Your task to perform on an android device: set default search engine in the chrome app Image 0: 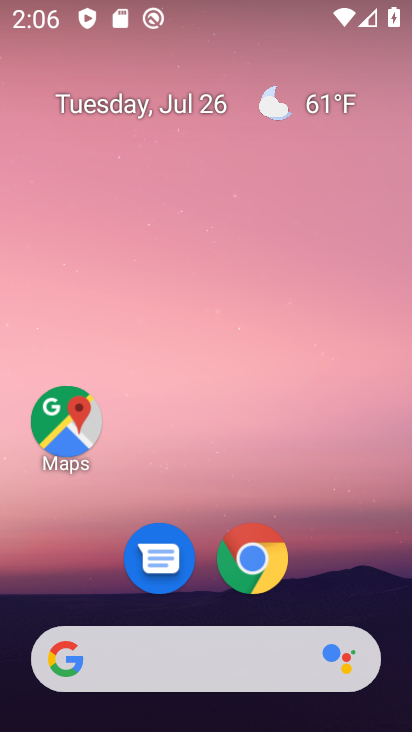
Step 0: click (268, 559)
Your task to perform on an android device: set default search engine in the chrome app Image 1: 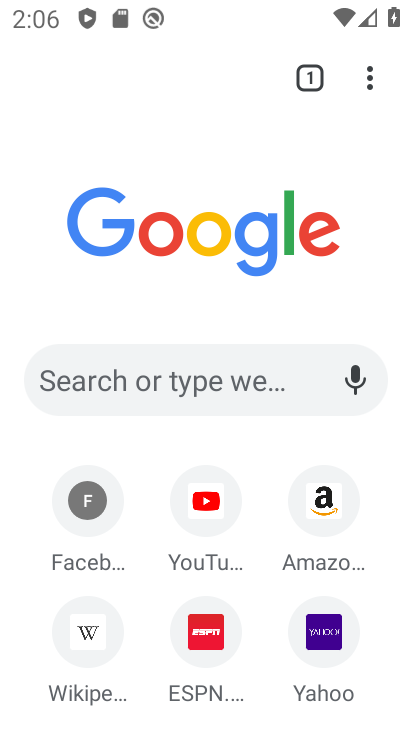
Step 1: drag from (366, 80) to (144, 613)
Your task to perform on an android device: set default search engine in the chrome app Image 2: 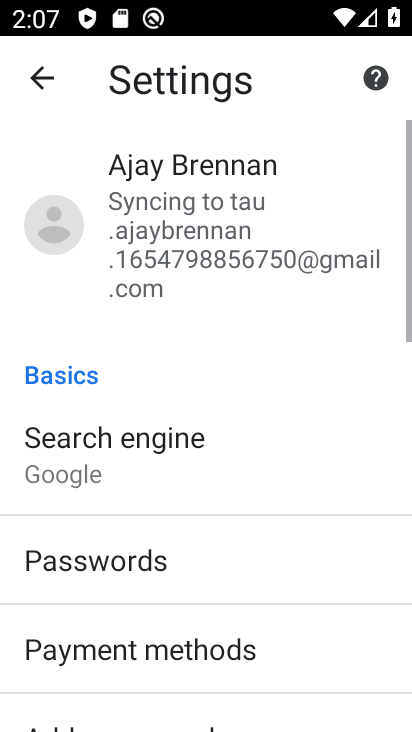
Step 2: click (103, 451)
Your task to perform on an android device: set default search engine in the chrome app Image 3: 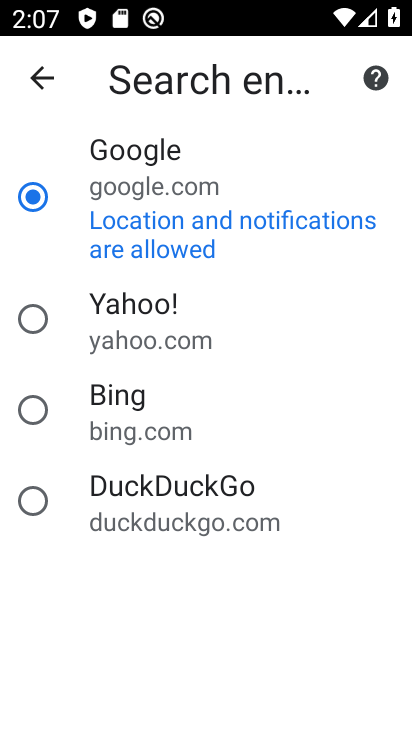
Step 3: click (131, 324)
Your task to perform on an android device: set default search engine in the chrome app Image 4: 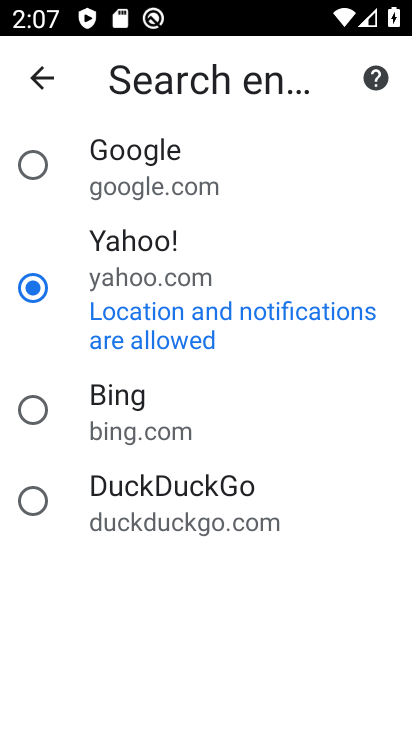
Step 4: task complete